Your task to perform on an android device: turn on location history Image 0: 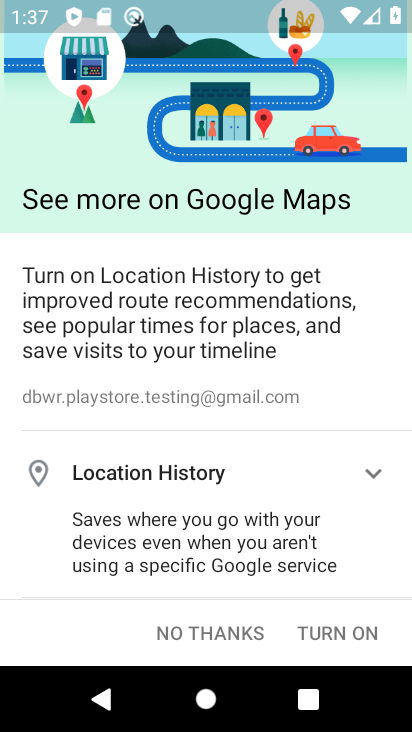
Step 0: press home button
Your task to perform on an android device: turn on location history Image 1: 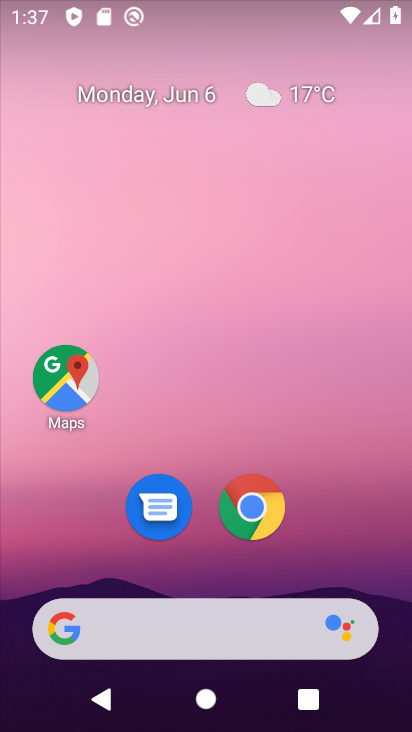
Step 1: drag from (354, 576) to (282, 162)
Your task to perform on an android device: turn on location history Image 2: 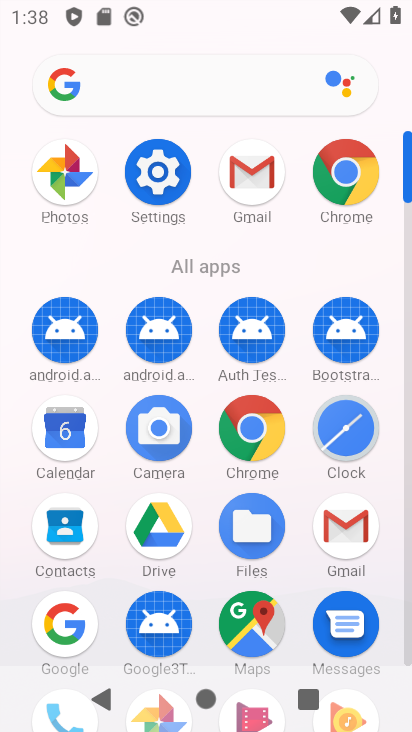
Step 2: click (260, 625)
Your task to perform on an android device: turn on location history Image 3: 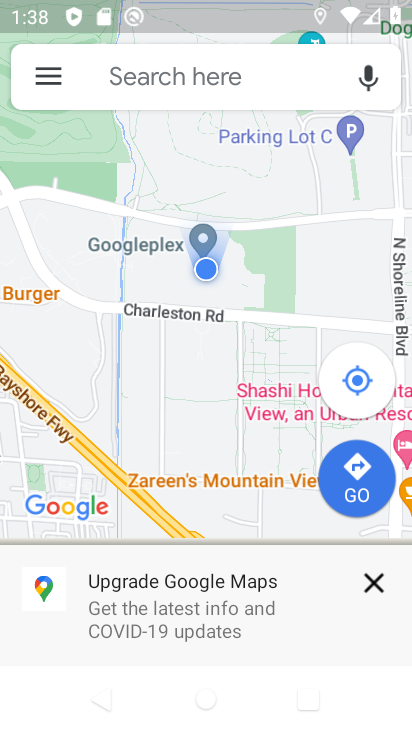
Step 3: click (54, 82)
Your task to perform on an android device: turn on location history Image 4: 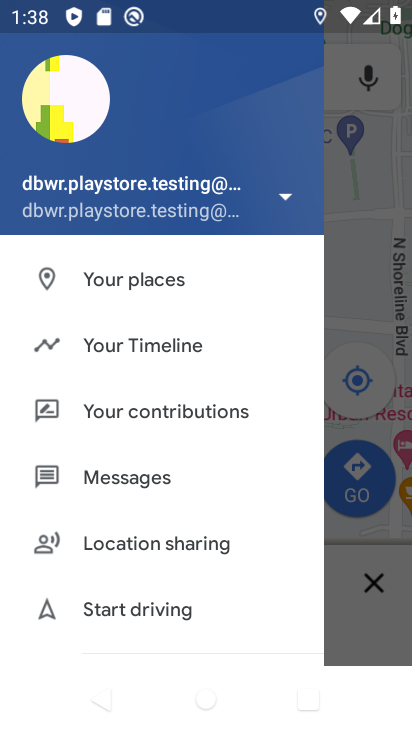
Step 4: click (142, 361)
Your task to perform on an android device: turn on location history Image 5: 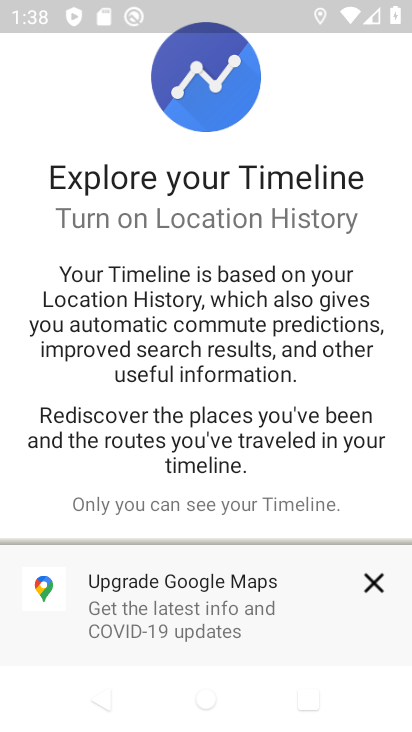
Step 5: click (371, 582)
Your task to perform on an android device: turn on location history Image 6: 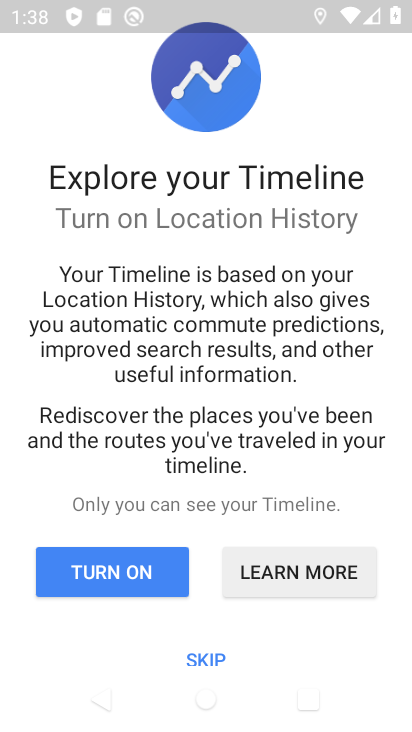
Step 6: click (177, 575)
Your task to perform on an android device: turn on location history Image 7: 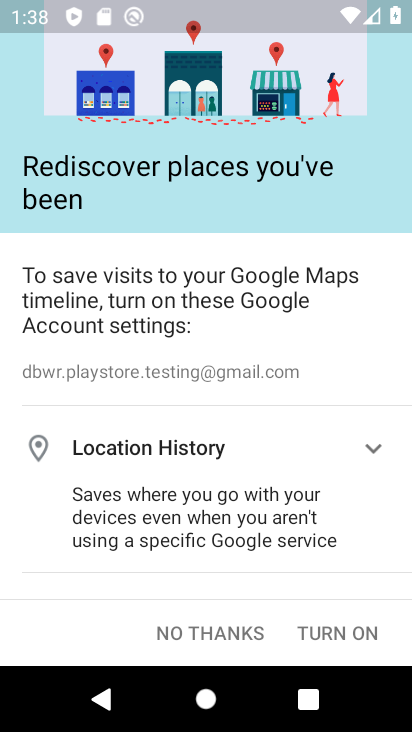
Step 7: click (332, 636)
Your task to perform on an android device: turn on location history Image 8: 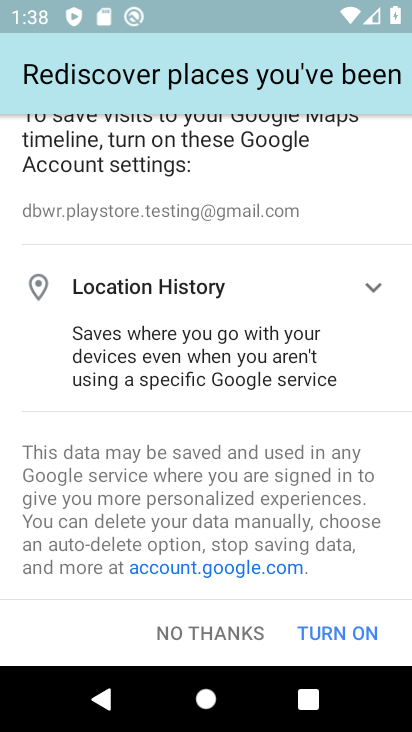
Step 8: click (332, 636)
Your task to perform on an android device: turn on location history Image 9: 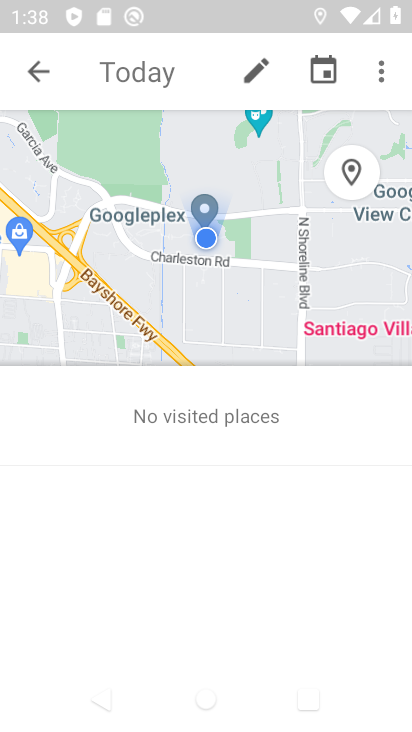
Step 9: task complete